Your task to perform on an android device: Show me the alarms in the clock app Image 0: 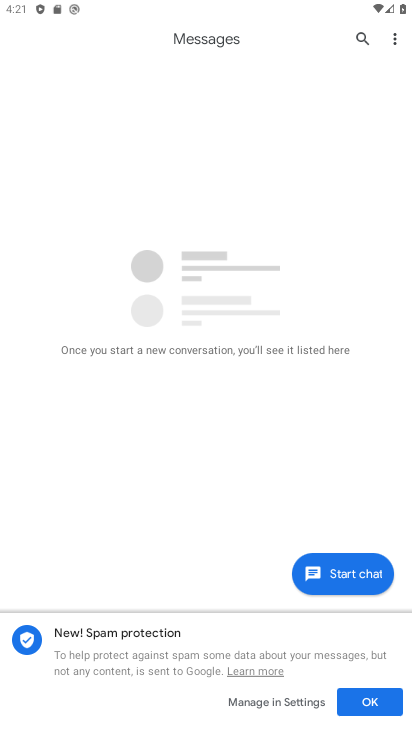
Step 0: press home button
Your task to perform on an android device: Show me the alarms in the clock app Image 1: 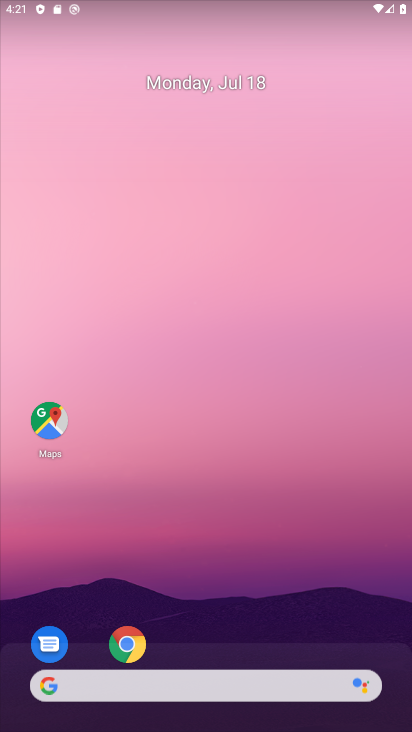
Step 1: drag from (179, 643) to (193, 216)
Your task to perform on an android device: Show me the alarms in the clock app Image 2: 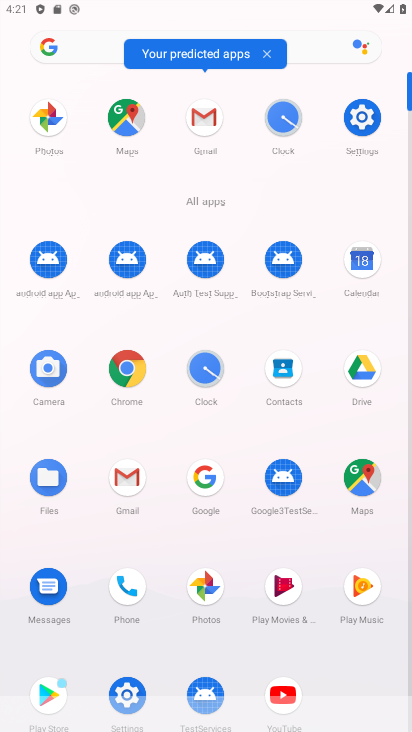
Step 2: click (289, 119)
Your task to perform on an android device: Show me the alarms in the clock app Image 3: 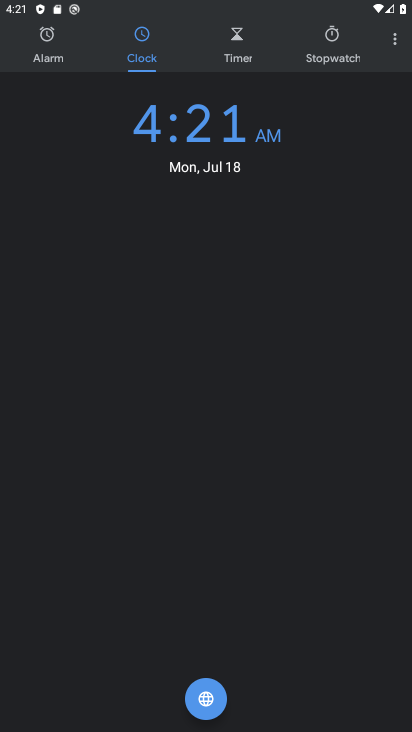
Step 3: click (51, 29)
Your task to perform on an android device: Show me the alarms in the clock app Image 4: 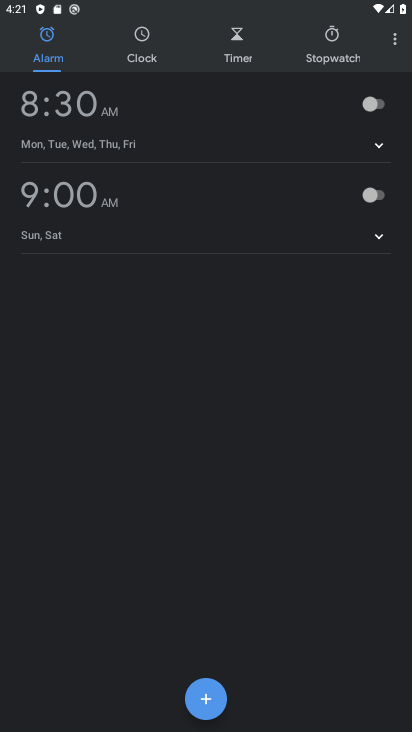
Step 4: task complete